Your task to perform on an android device: Open Youtube and go to "Your channel" Image 0: 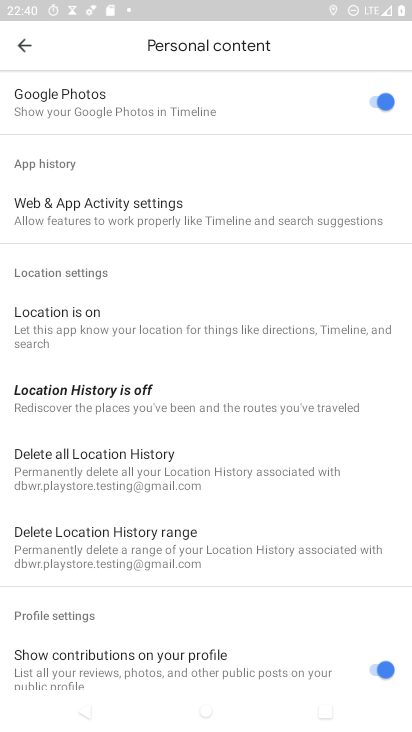
Step 0: press back button
Your task to perform on an android device: Open Youtube and go to "Your channel" Image 1: 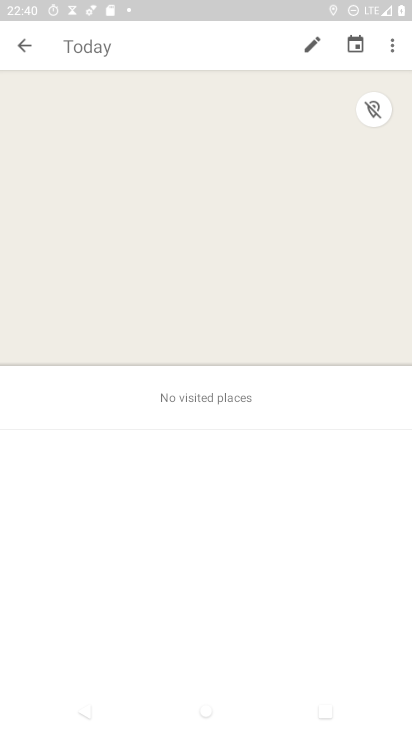
Step 1: press back button
Your task to perform on an android device: Open Youtube and go to "Your channel" Image 2: 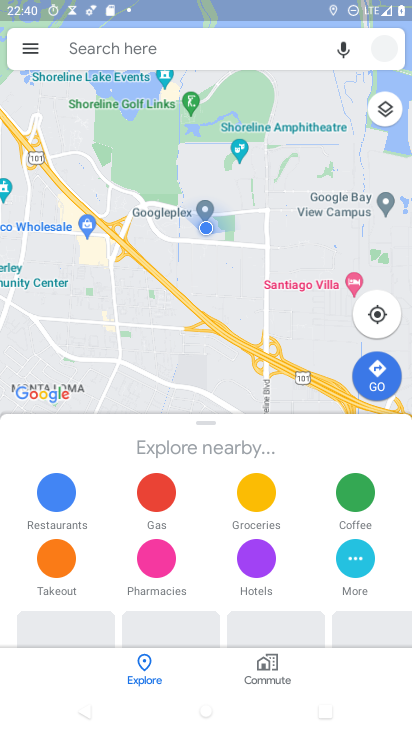
Step 2: press home button
Your task to perform on an android device: Open Youtube and go to "Your channel" Image 3: 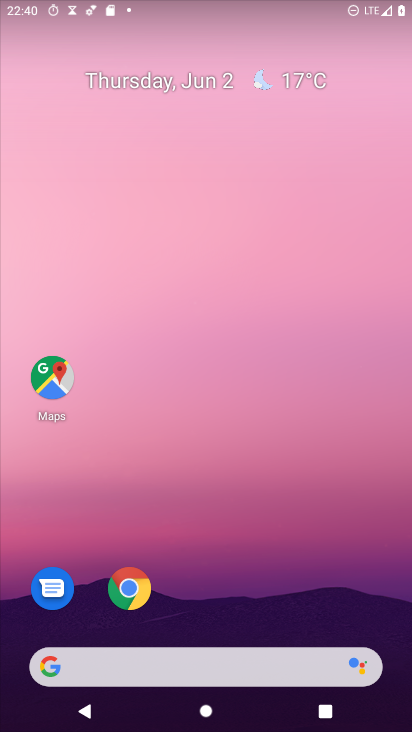
Step 3: drag from (249, 528) to (343, 16)
Your task to perform on an android device: Open Youtube and go to "Your channel" Image 4: 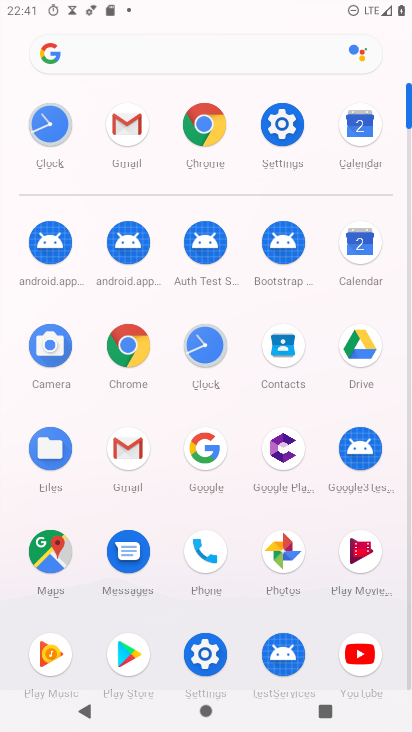
Step 4: click (358, 647)
Your task to perform on an android device: Open Youtube and go to "Your channel" Image 5: 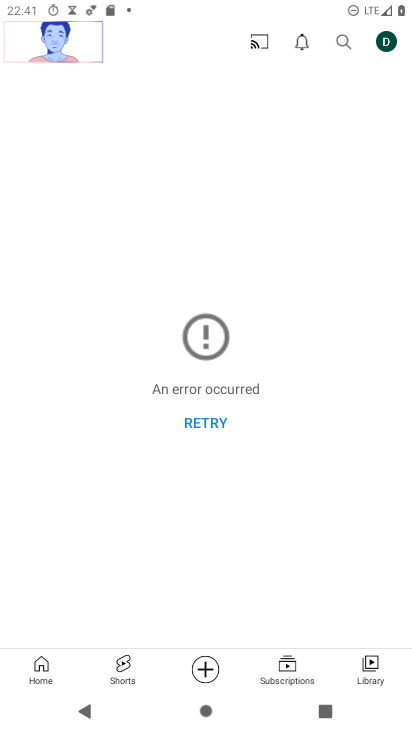
Step 5: click (384, 36)
Your task to perform on an android device: Open Youtube and go to "Your channel" Image 6: 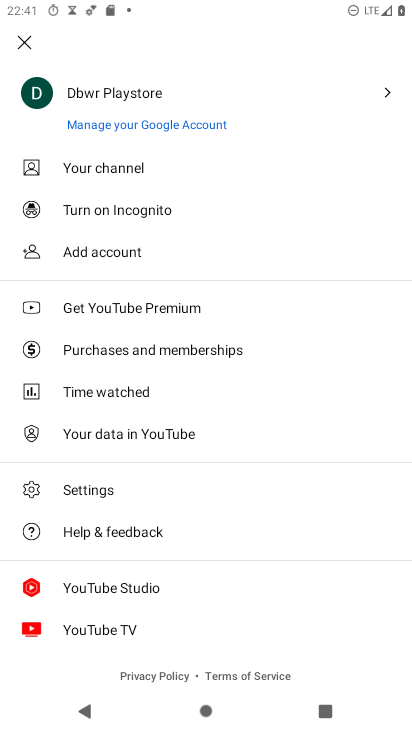
Step 6: click (98, 153)
Your task to perform on an android device: Open Youtube and go to "Your channel" Image 7: 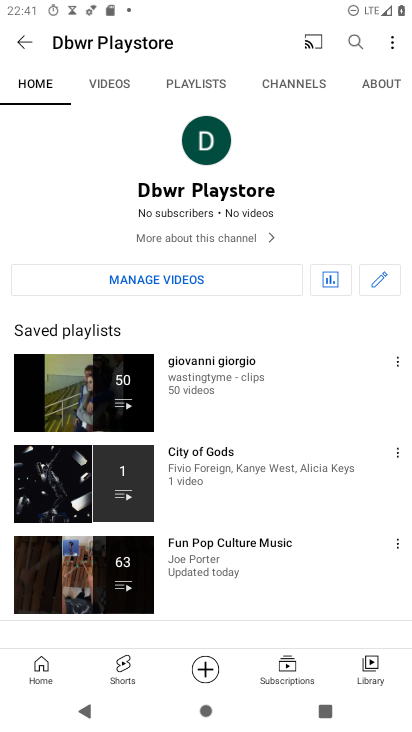
Step 7: task complete